Your task to perform on an android device: What's the weather going to be tomorrow? Image 0: 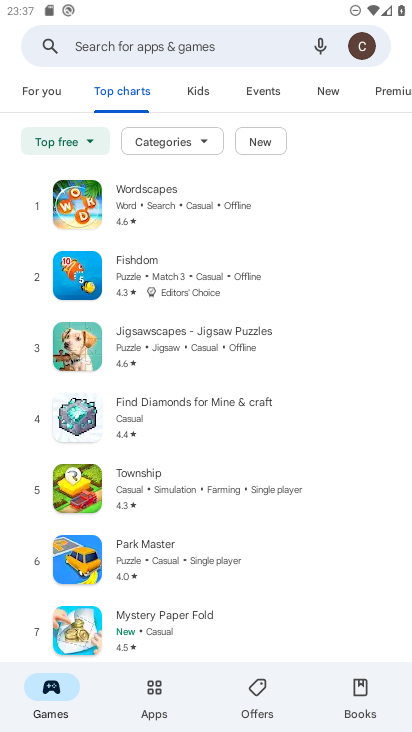
Step 0: press home button
Your task to perform on an android device: What's the weather going to be tomorrow? Image 1: 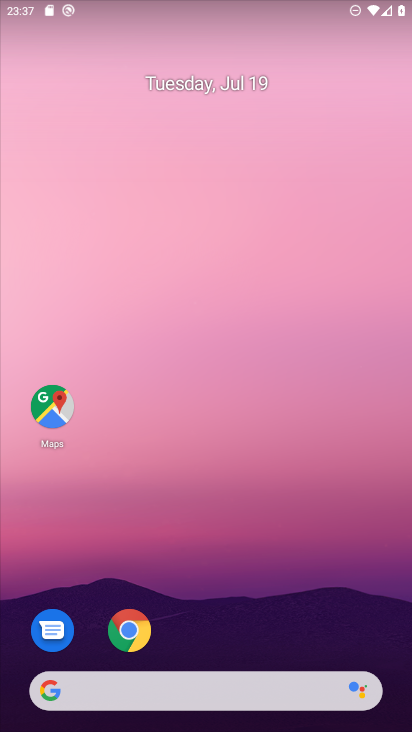
Step 1: drag from (202, 497) to (184, 172)
Your task to perform on an android device: What's the weather going to be tomorrow? Image 2: 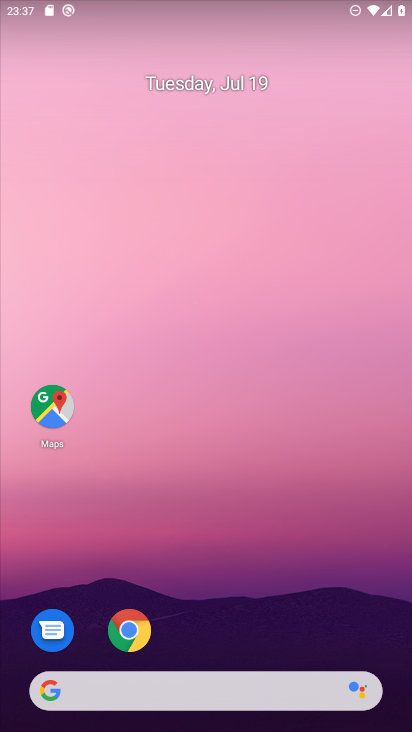
Step 2: drag from (250, 617) to (264, 31)
Your task to perform on an android device: What's the weather going to be tomorrow? Image 3: 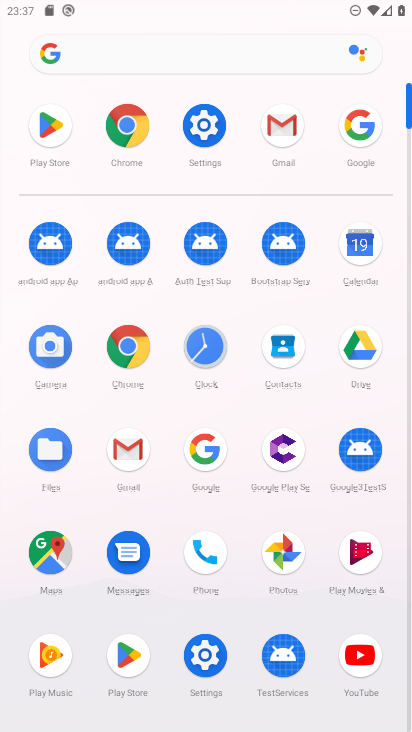
Step 3: click (209, 476)
Your task to perform on an android device: What's the weather going to be tomorrow? Image 4: 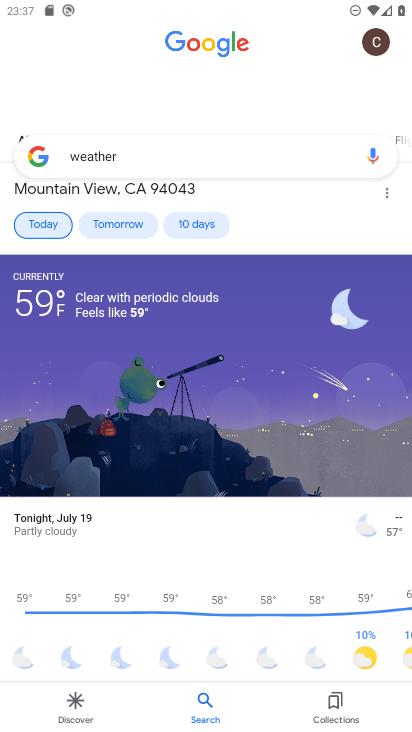
Step 4: click (94, 220)
Your task to perform on an android device: What's the weather going to be tomorrow? Image 5: 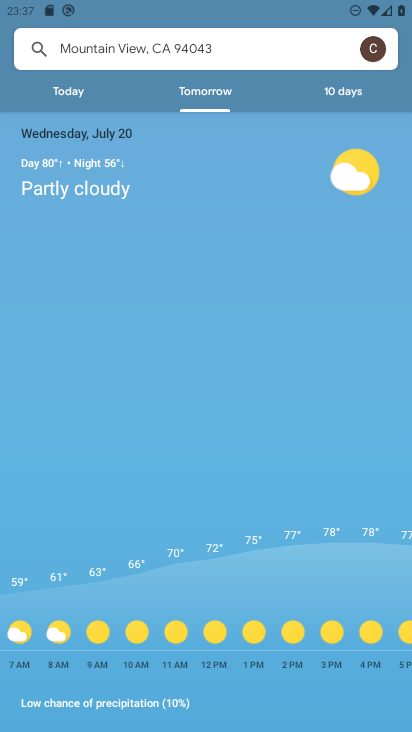
Step 5: task complete